Your task to perform on an android device: turn smart compose on in the gmail app Image 0: 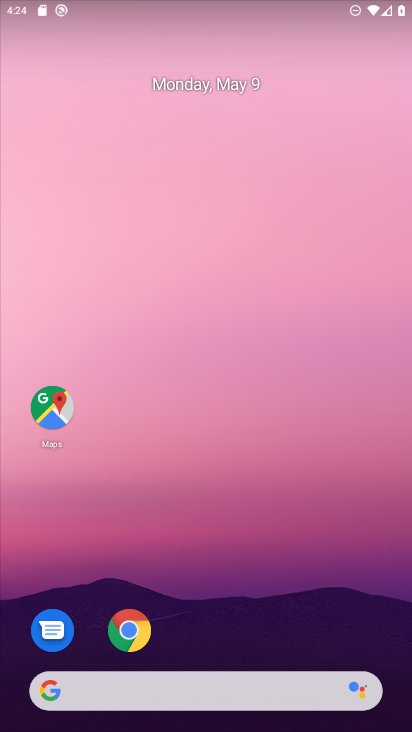
Step 0: drag from (211, 652) to (126, 198)
Your task to perform on an android device: turn smart compose on in the gmail app Image 1: 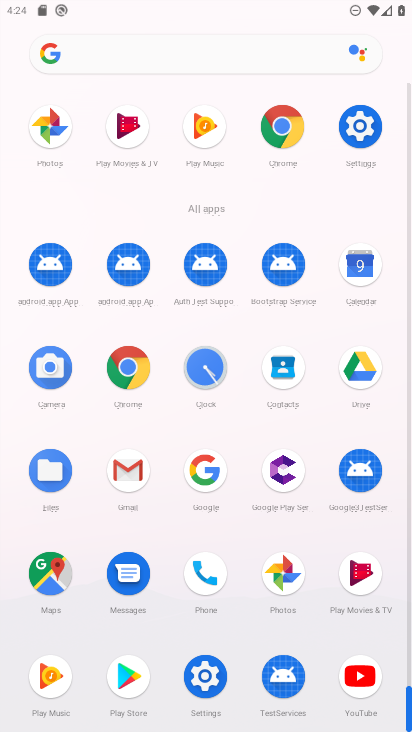
Step 1: click (130, 475)
Your task to perform on an android device: turn smart compose on in the gmail app Image 2: 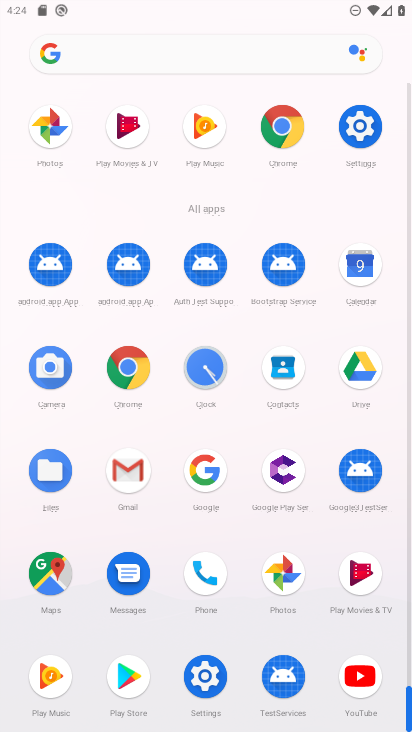
Step 2: click (130, 475)
Your task to perform on an android device: turn smart compose on in the gmail app Image 3: 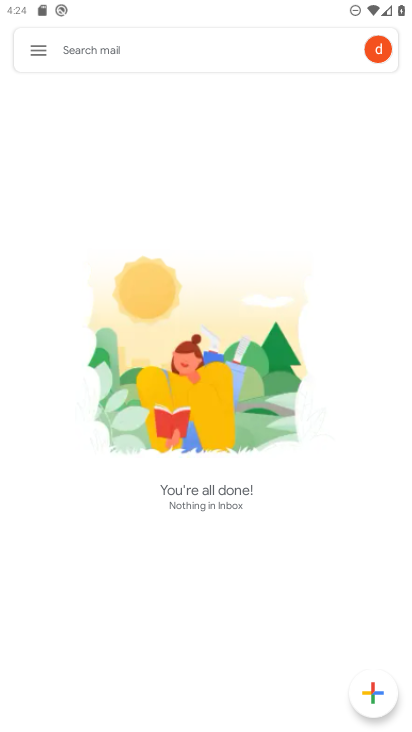
Step 3: click (34, 61)
Your task to perform on an android device: turn smart compose on in the gmail app Image 4: 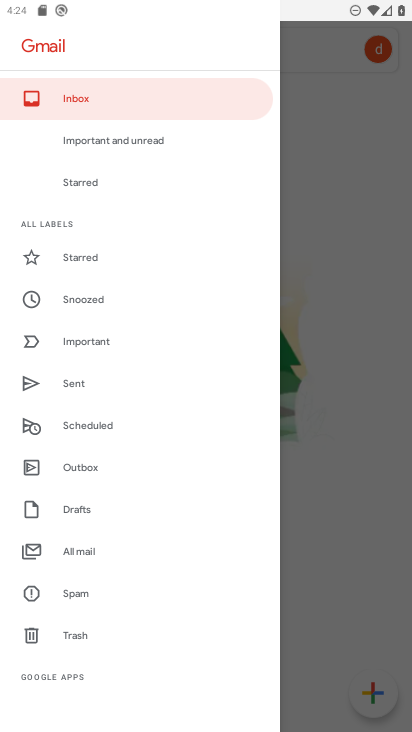
Step 4: drag from (96, 597) to (82, 90)
Your task to perform on an android device: turn smart compose on in the gmail app Image 5: 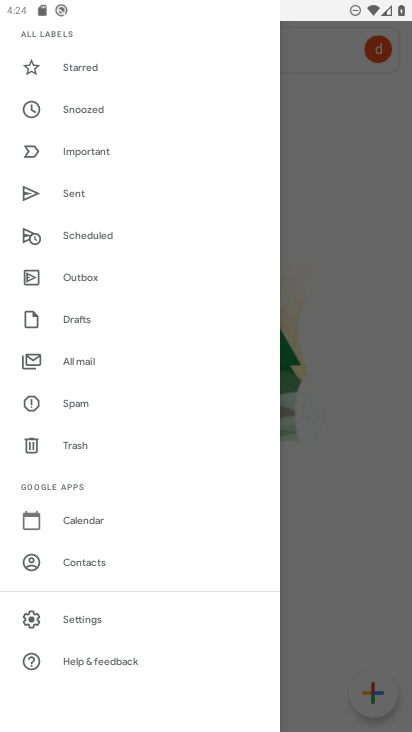
Step 5: click (81, 617)
Your task to perform on an android device: turn smart compose on in the gmail app Image 6: 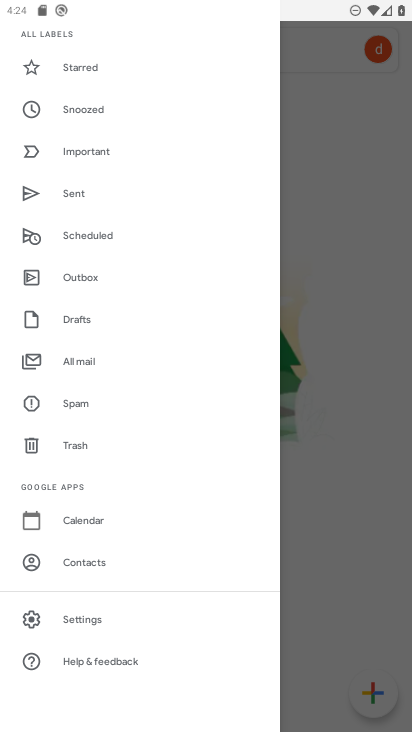
Step 6: click (81, 617)
Your task to perform on an android device: turn smart compose on in the gmail app Image 7: 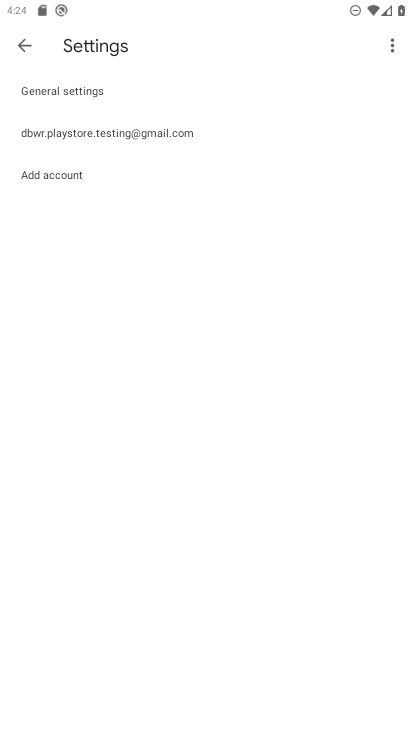
Step 7: click (108, 123)
Your task to perform on an android device: turn smart compose on in the gmail app Image 8: 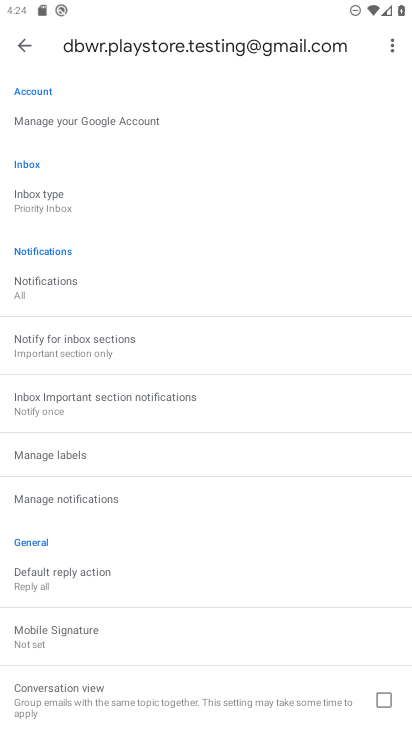
Step 8: click (99, 261)
Your task to perform on an android device: turn smart compose on in the gmail app Image 9: 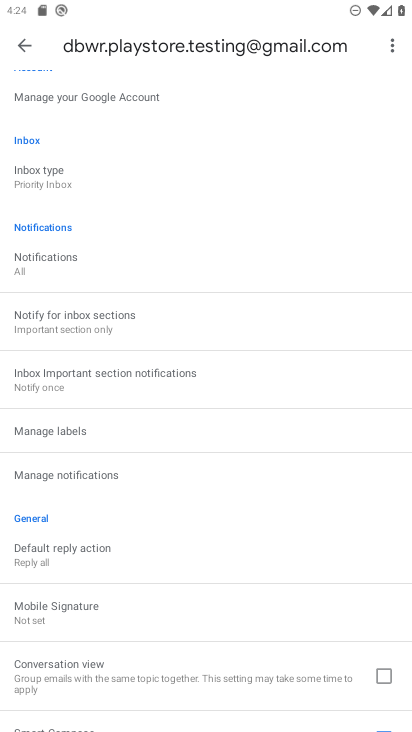
Step 9: drag from (110, 634) to (94, 216)
Your task to perform on an android device: turn smart compose on in the gmail app Image 10: 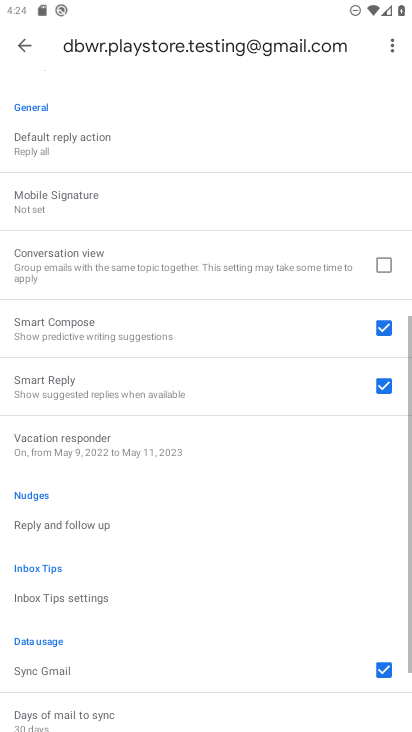
Step 10: drag from (264, 537) to (229, 110)
Your task to perform on an android device: turn smart compose on in the gmail app Image 11: 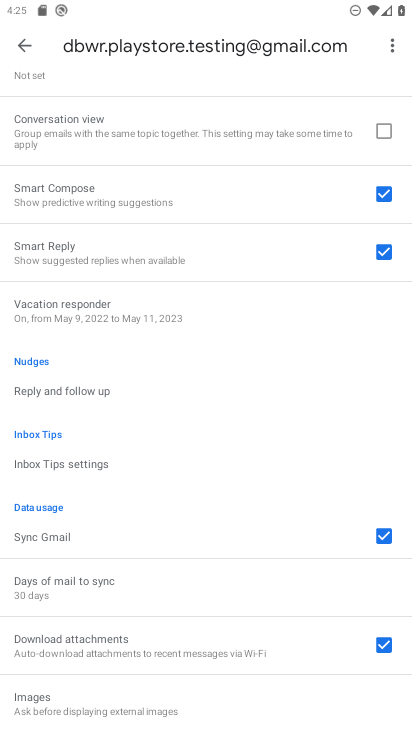
Step 11: click (232, 65)
Your task to perform on an android device: turn smart compose on in the gmail app Image 12: 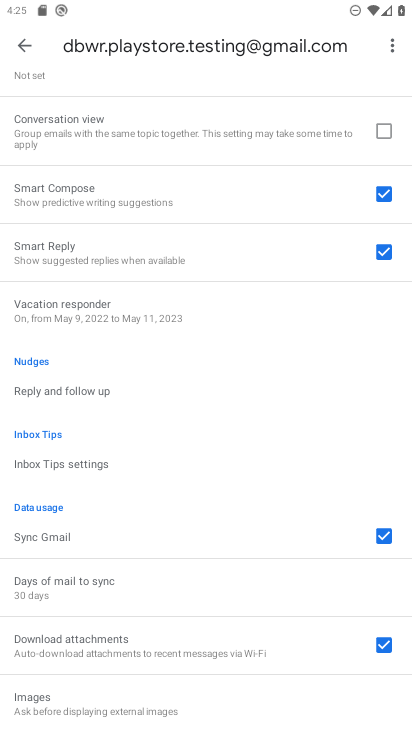
Step 12: task complete